Your task to perform on an android device: delete the emails in spam in the gmail app Image 0: 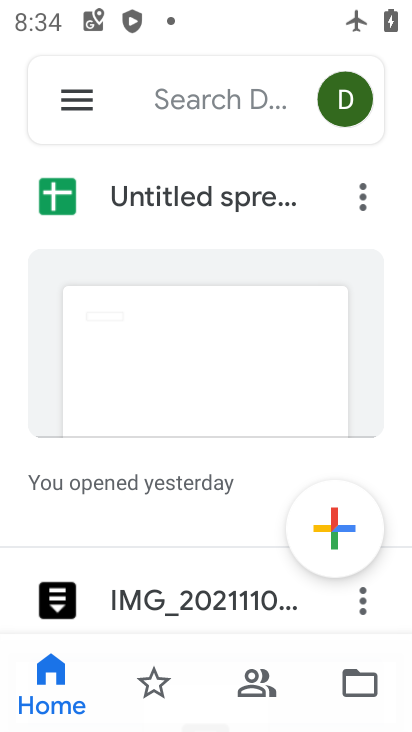
Step 0: press home button
Your task to perform on an android device: delete the emails in spam in the gmail app Image 1: 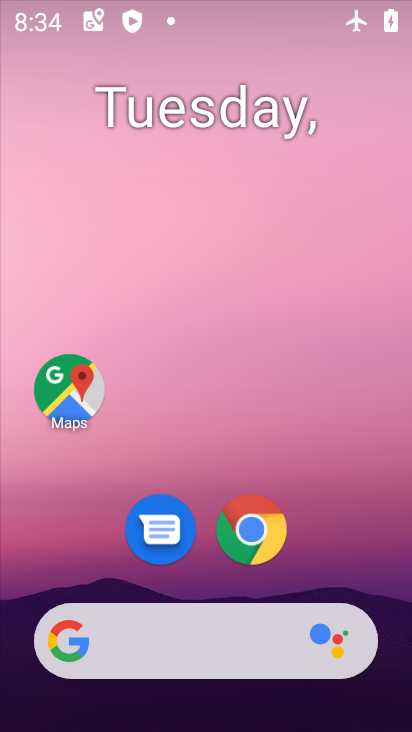
Step 1: drag from (248, 649) to (246, 40)
Your task to perform on an android device: delete the emails in spam in the gmail app Image 2: 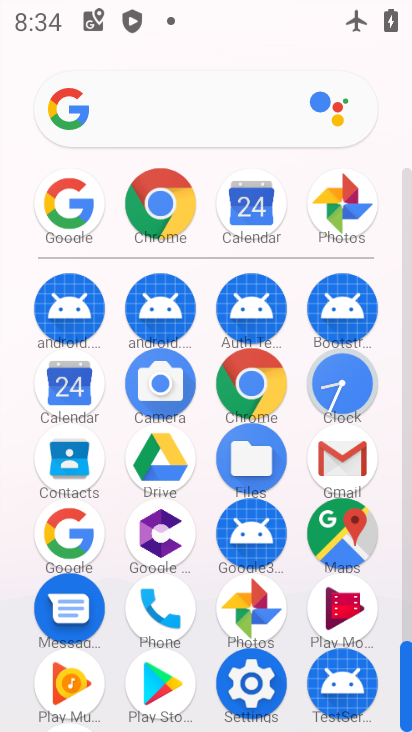
Step 2: click (353, 465)
Your task to perform on an android device: delete the emails in spam in the gmail app Image 3: 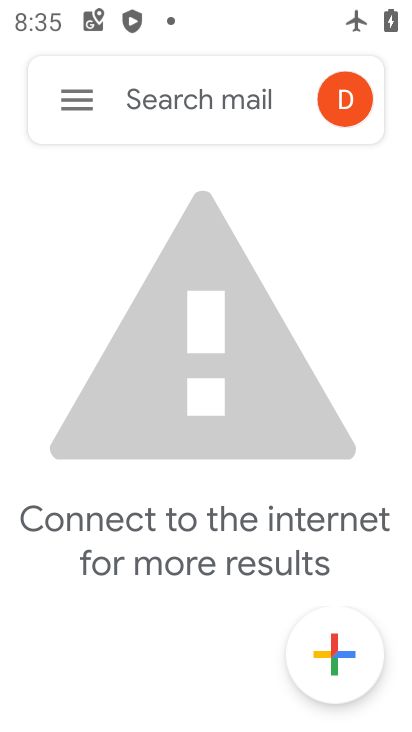
Step 3: click (85, 108)
Your task to perform on an android device: delete the emails in spam in the gmail app Image 4: 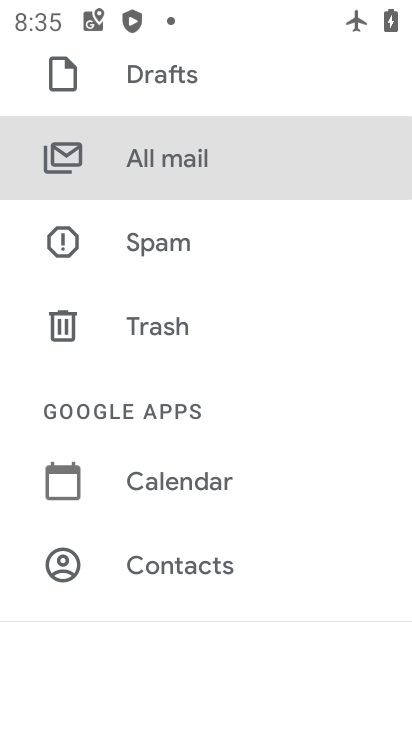
Step 4: click (161, 254)
Your task to perform on an android device: delete the emails in spam in the gmail app Image 5: 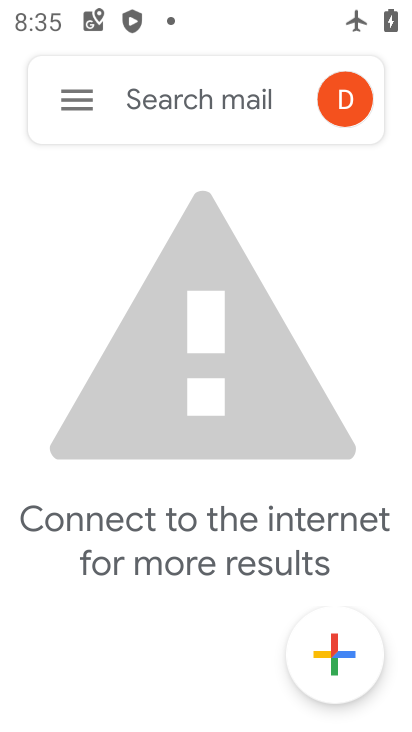
Step 5: task complete